Your task to perform on an android device: Open Google Chrome Image 0: 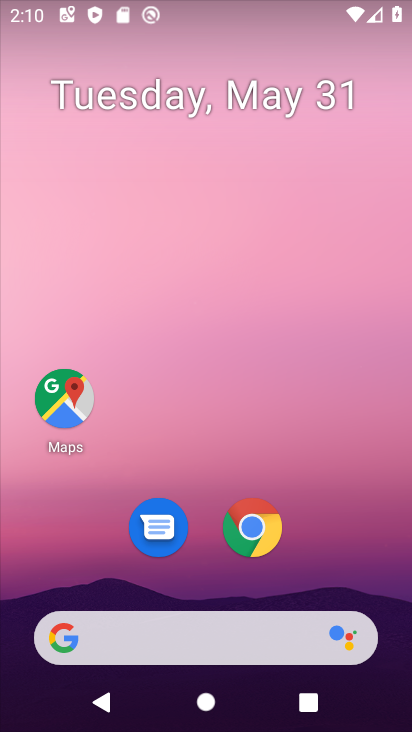
Step 0: drag from (376, 547) to (0, 226)
Your task to perform on an android device: Open Google Chrome Image 1: 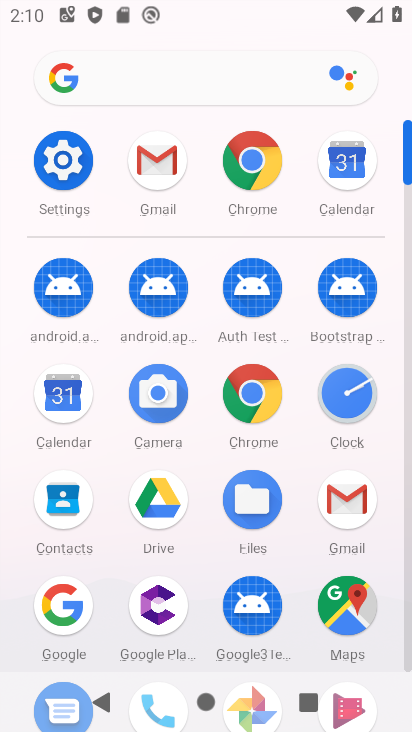
Step 1: click (258, 185)
Your task to perform on an android device: Open Google Chrome Image 2: 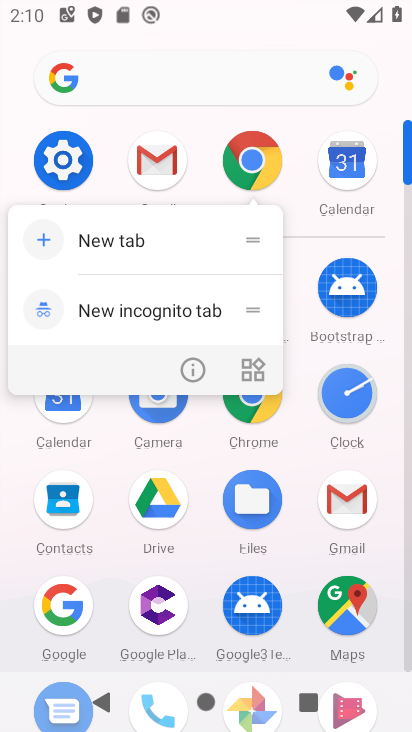
Step 2: click (233, 173)
Your task to perform on an android device: Open Google Chrome Image 3: 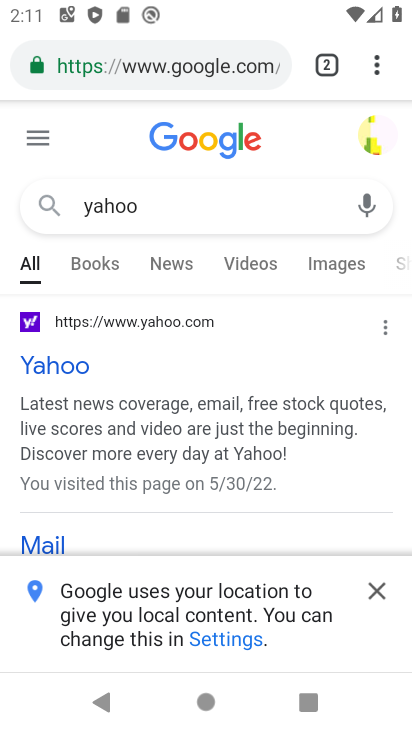
Step 3: task complete